Your task to perform on an android device: Open network settings Image 0: 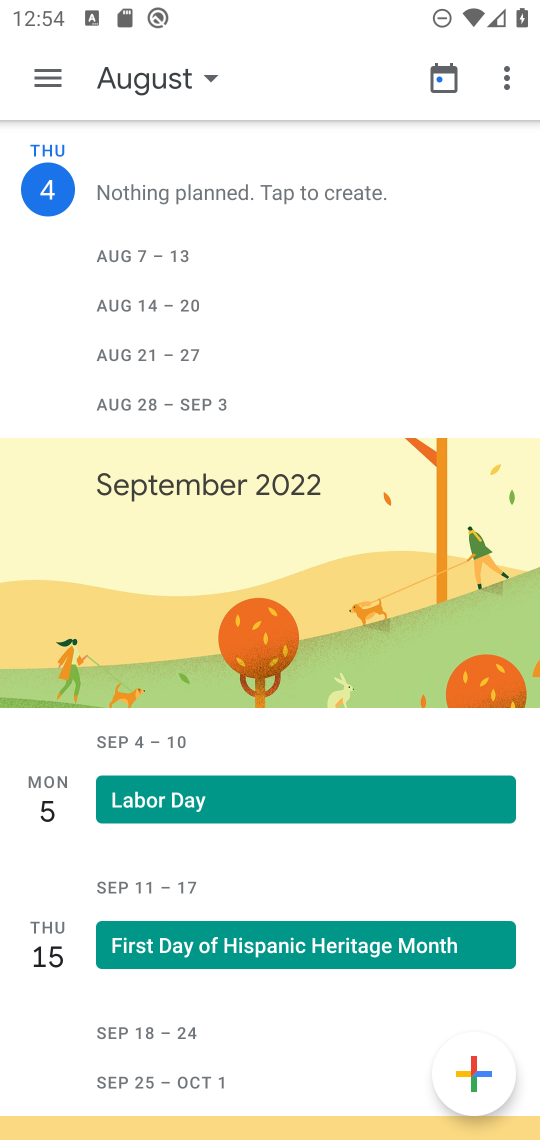
Step 0: press home button
Your task to perform on an android device: Open network settings Image 1: 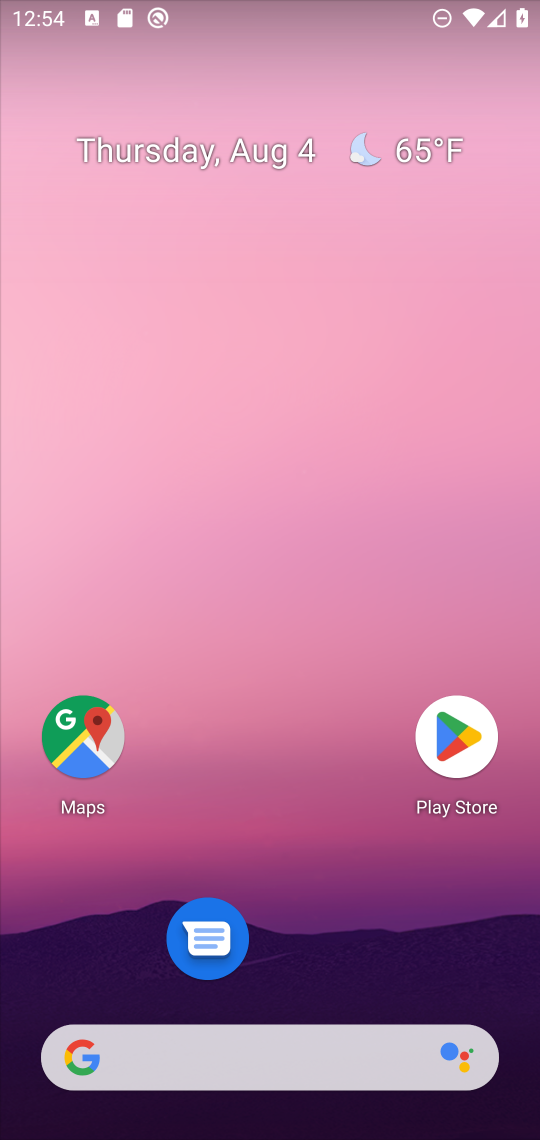
Step 1: drag from (145, 908) to (504, 74)
Your task to perform on an android device: Open network settings Image 2: 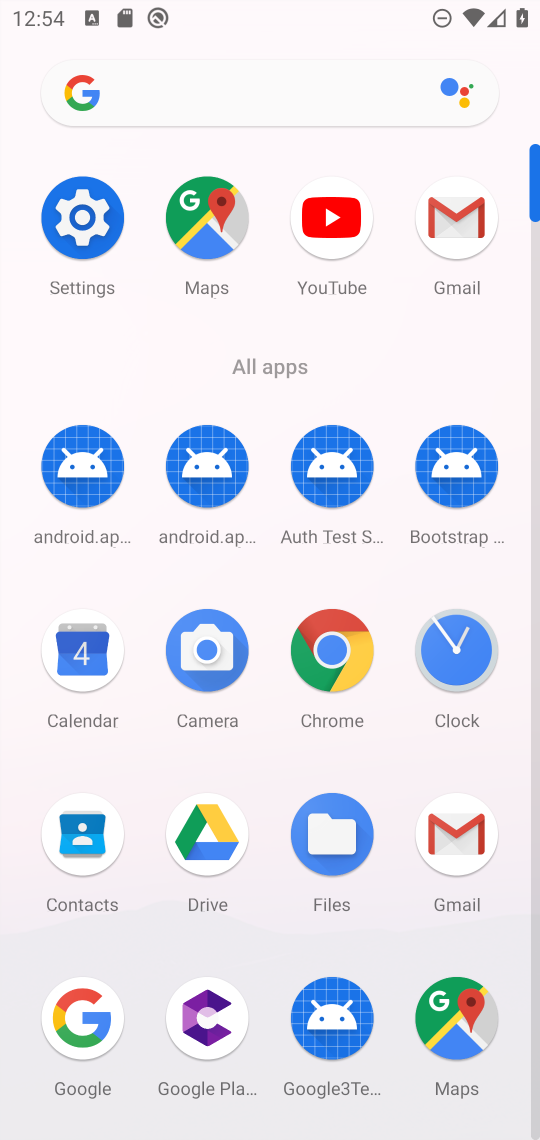
Step 2: click (104, 242)
Your task to perform on an android device: Open network settings Image 3: 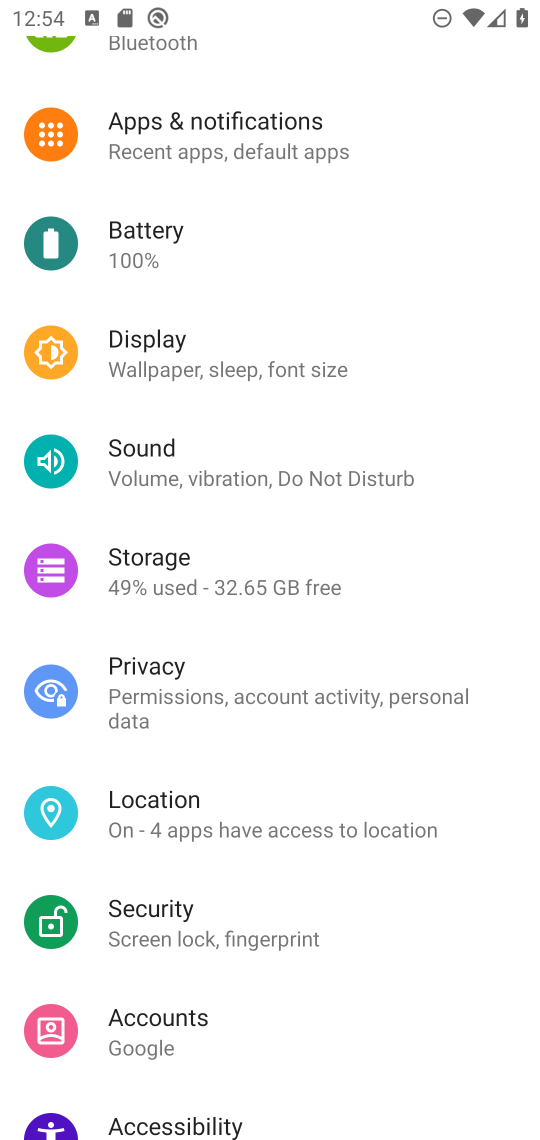
Step 3: drag from (398, 171) to (120, 1091)
Your task to perform on an android device: Open network settings Image 4: 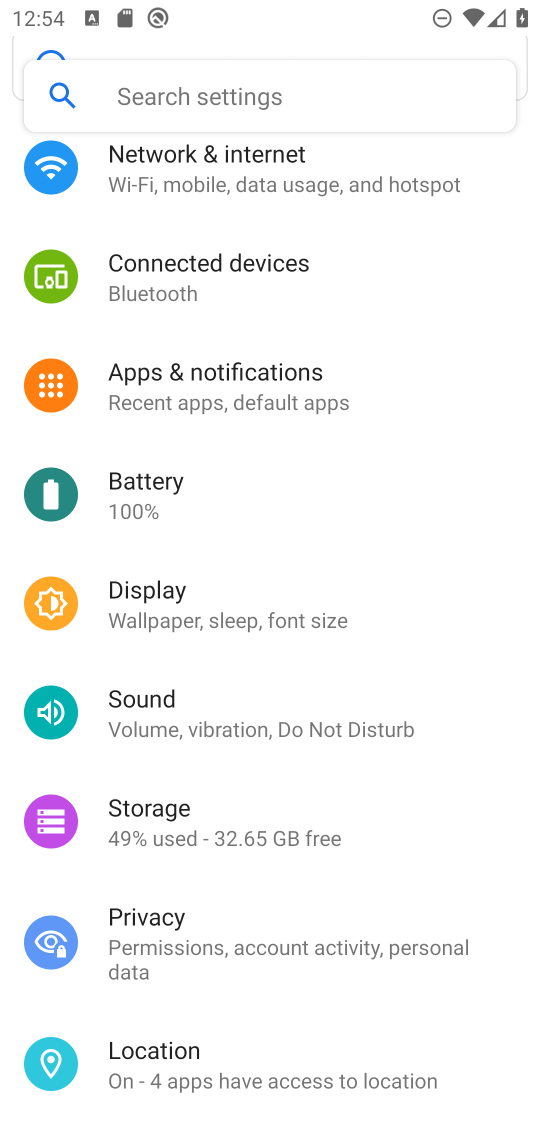
Step 4: drag from (302, 671) to (222, 1110)
Your task to perform on an android device: Open network settings Image 5: 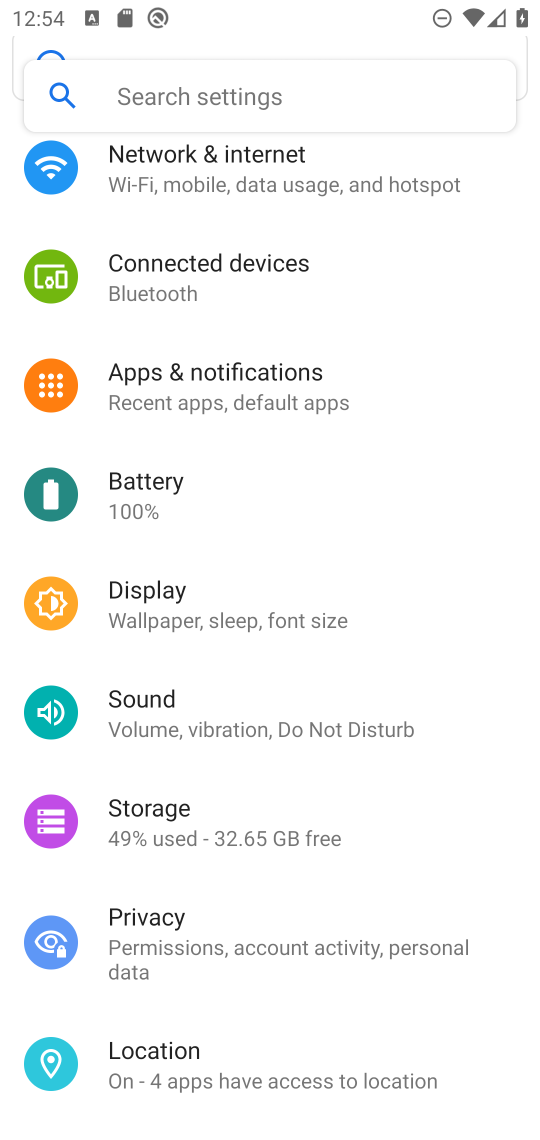
Step 5: drag from (275, 256) to (155, 1111)
Your task to perform on an android device: Open network settings Image 6: 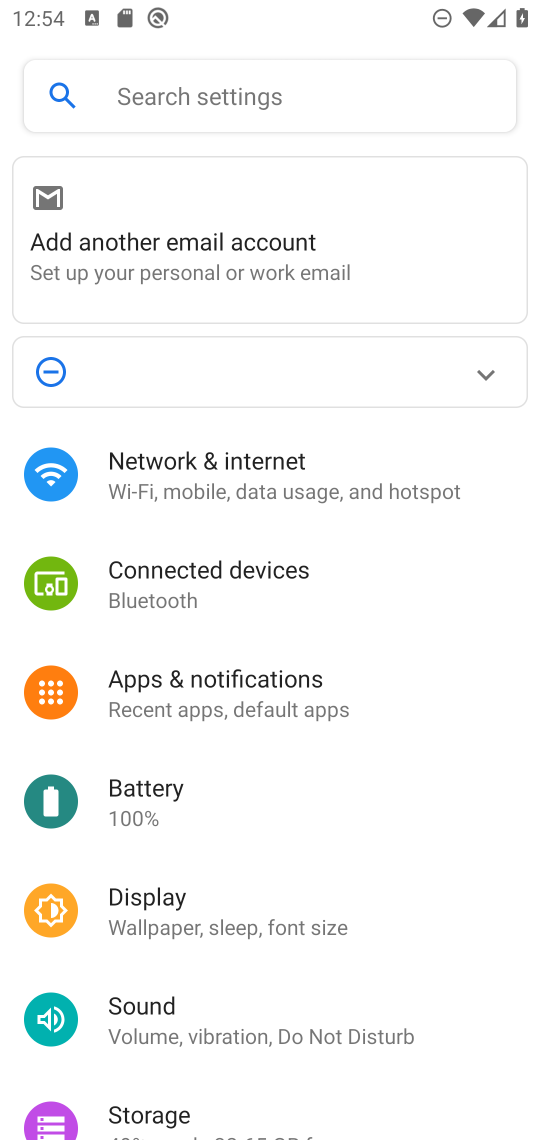
Step 6: click (208, 475)
Your task to perform on an android device: Open network settings Image 7: 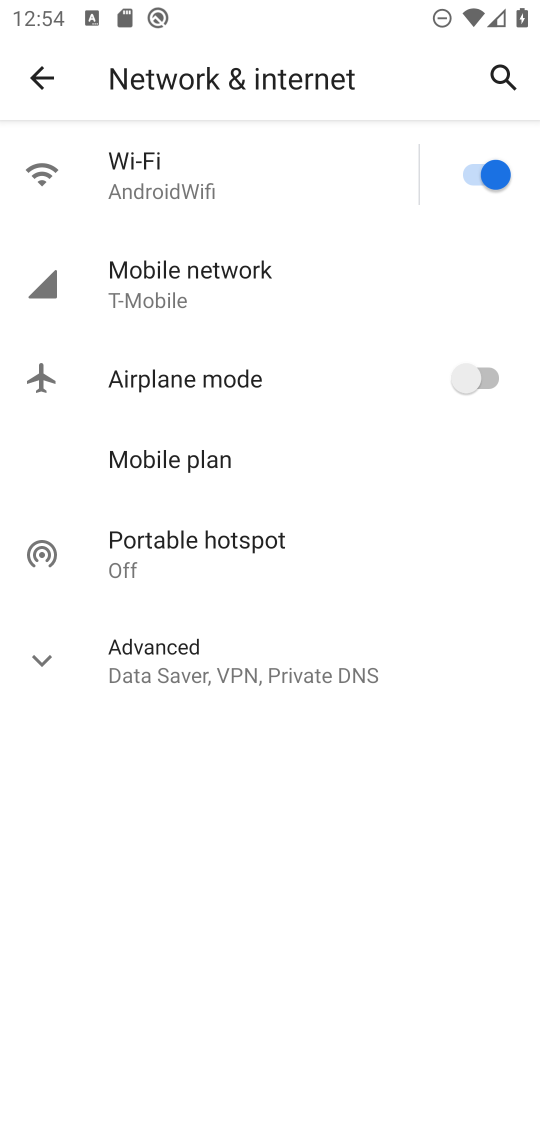
Step 7: task complete